Your task to perform on an android device: Open privacy settings Image 0: 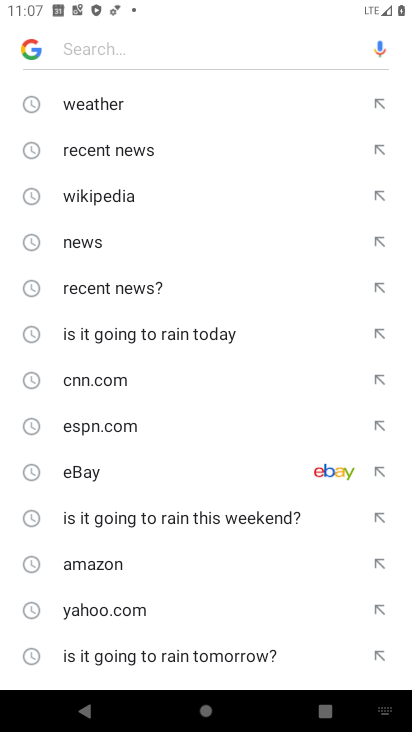
Step 0: press home button
Your task to perform on an android device: Open privacy settings Image 1: 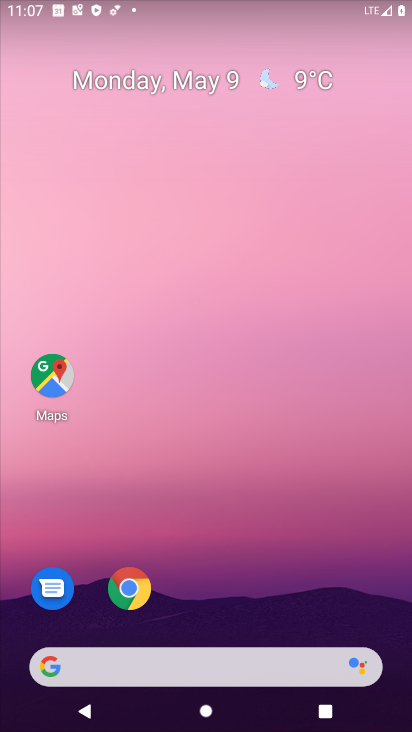
Step 1: drag from (159, 651) to (338, 140)
Your task to perform on an android device: Open privacy settings Image 2: 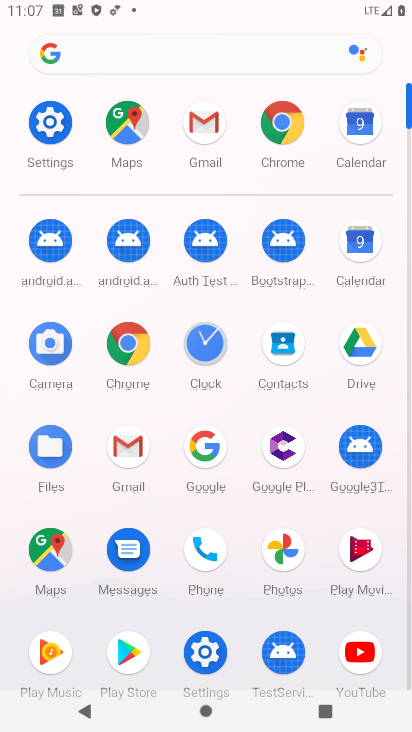
Step 2: click (43, 129)
Your task to perform on an android device: Open privacy settings Image 3: 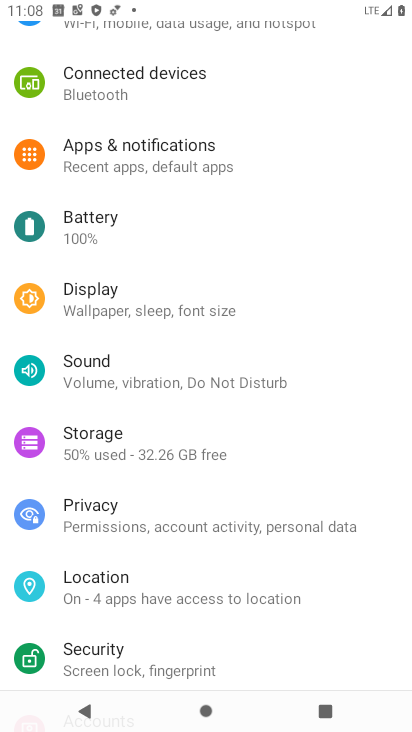
Step 3: click (106, 518)
Your task to perform on an android device: Open privacy settings Image 4: 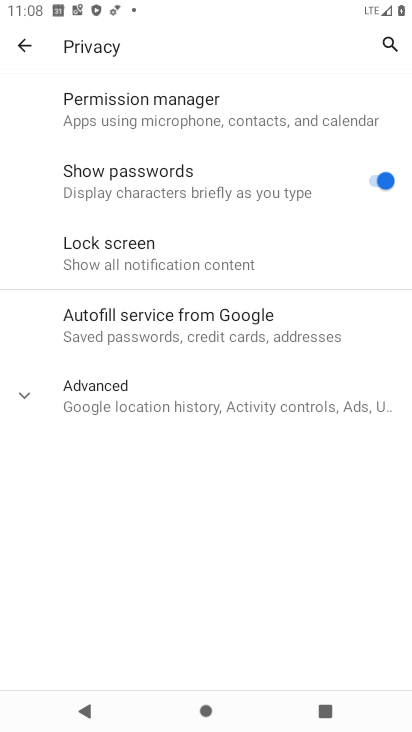
Step 4: task complete